Your task to perform on an android device: check battery use Image 0: 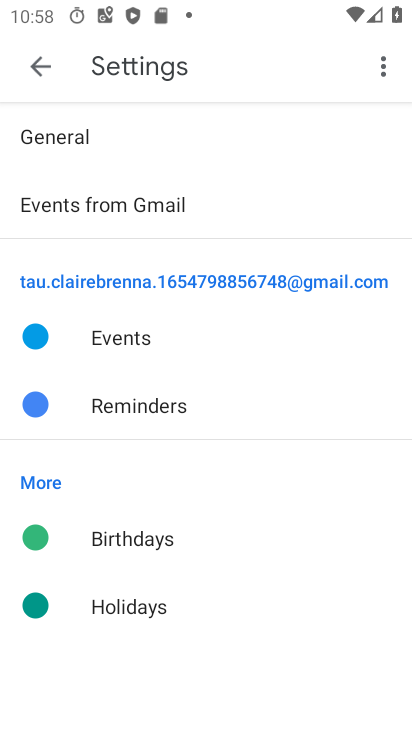
Step 0: press home button
Your task to perform on an android device: check battery use Image 1: 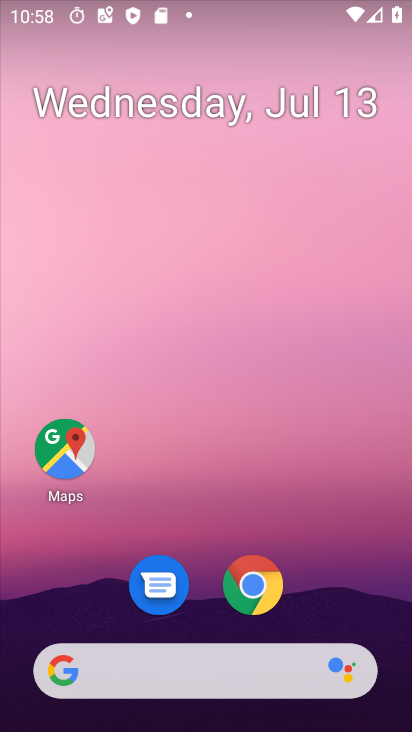
Step 1: drag from (237, 515) to (228, 15)
Your task to perform on an android device: check battery use Image 2: 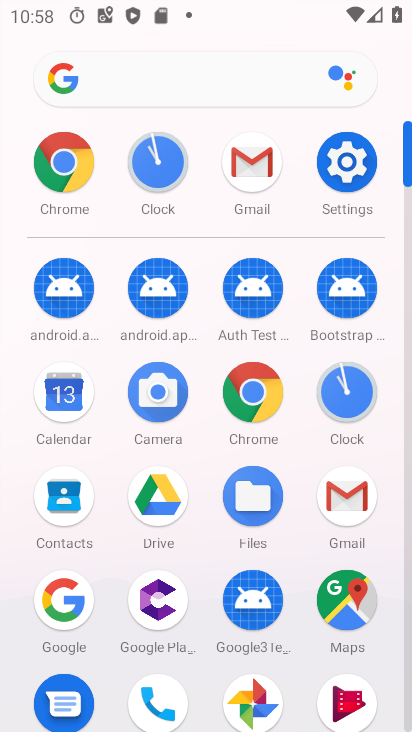
Step 2: click (332, 160)
Your task to perform on an android device: check battery use Image 3: 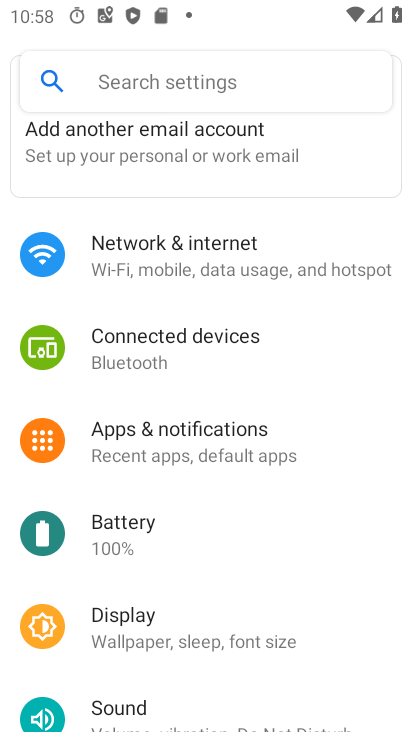
Step 3: click (137, 521)
Your task to perform on an android device: check battery use Image 4: 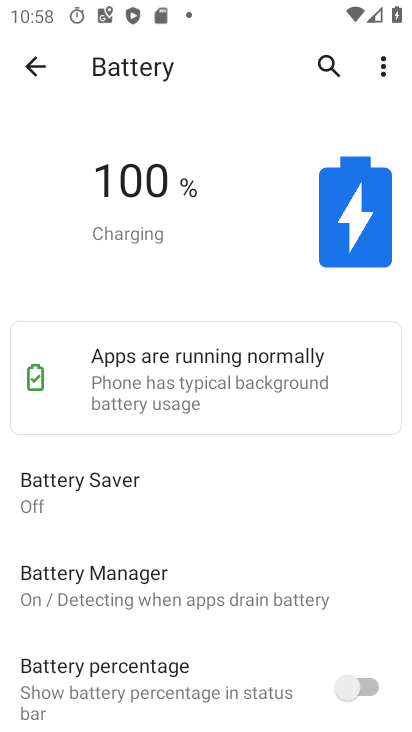
Step 4: click (384, 63)
Your task to perform on an android device: check battery use Image 5: 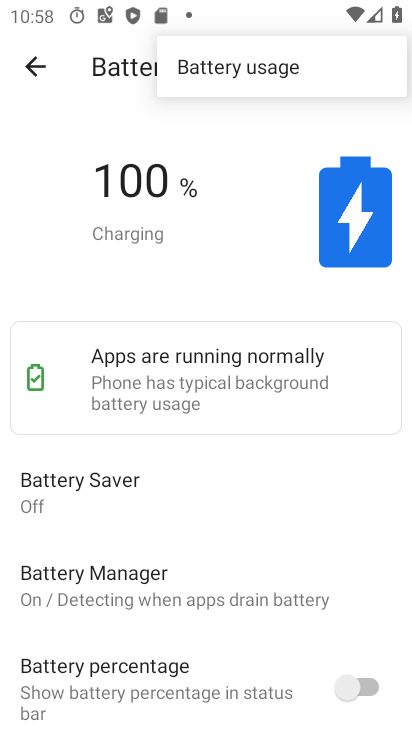
Step 5: click (329, 60)
Your task to perform on an android device: check battery use Image 6: 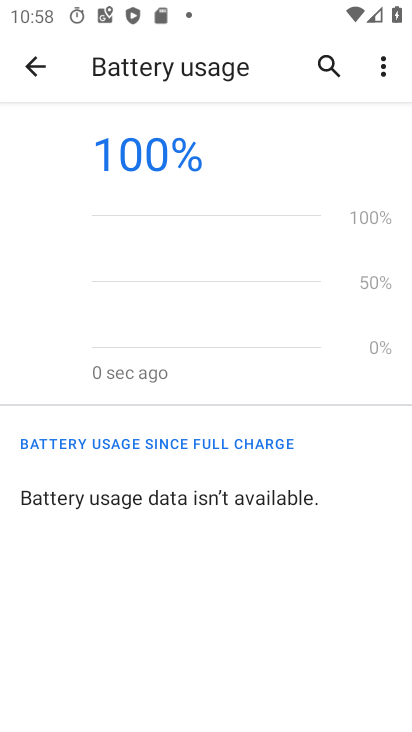
Step 6: task complete